Your task to perform on an android device: turn on notifications settings in the gmail app Image 0: 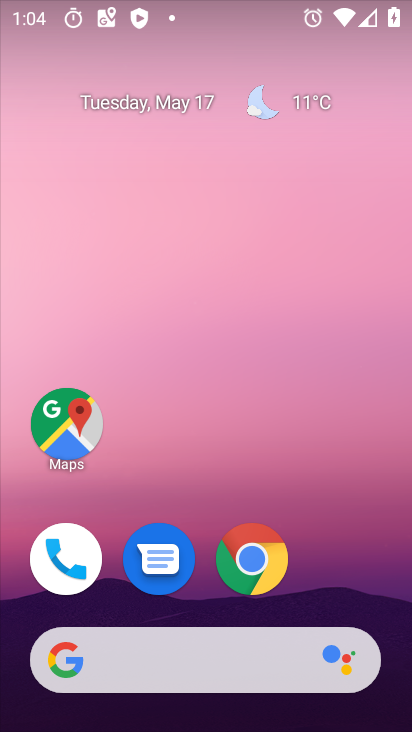
Step 0: drag from (344, 581) to (250, 27)
Your task to perform on an android device: turn on notifications settings in the gmail app Image 1: 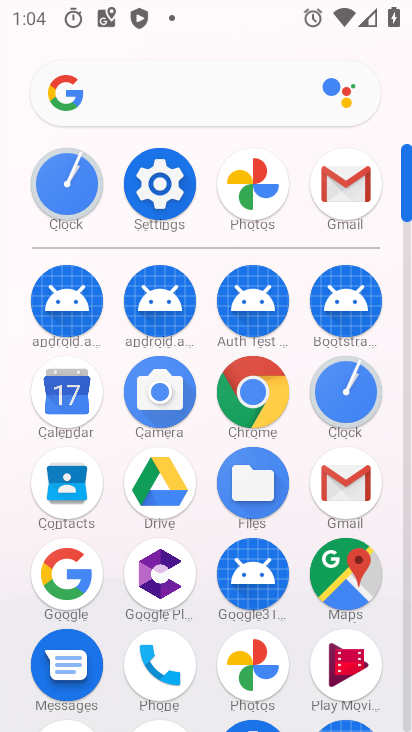
Step 1: click (336, 179)
Your task to perform on an android device: turn on notifications settings in the gmail app Image 2: 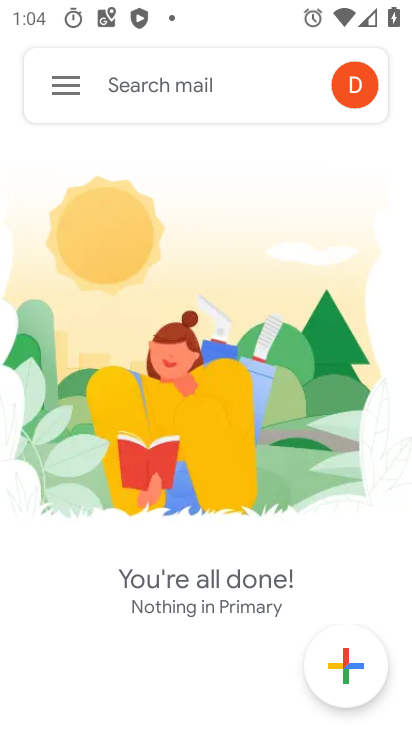
Step 2: click (72, 76)
Your task to perform on an android device: turn on notifications settings in the gmail app Image 3: 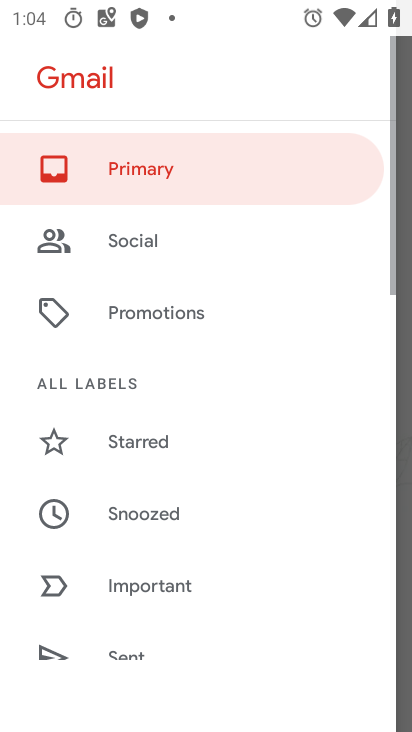
Step 3: drag from (186, 602) to (250, 228)
Your task to perform on an android device: turn on notifications settings in the gmail app Image 4: 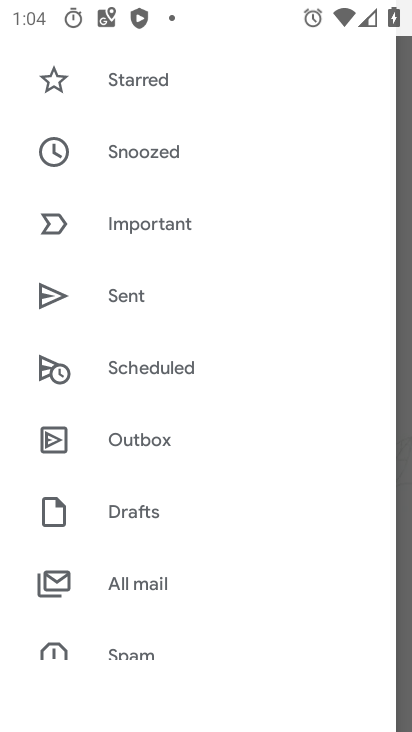
Step 4: drag from (149, 634) to (278, 190)
Your task to perform on an android device: turn on notifications settings in the gmail app Image 5: 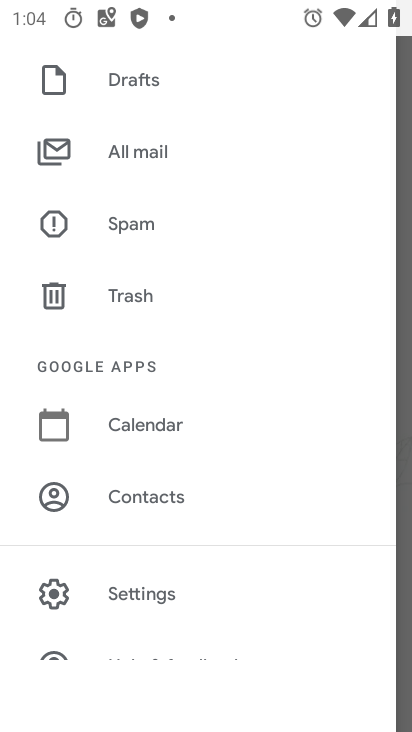
Step 5: click (122, 602)
Your task to perform on an android device: turn on notifications settings in the gmail app Image 6: 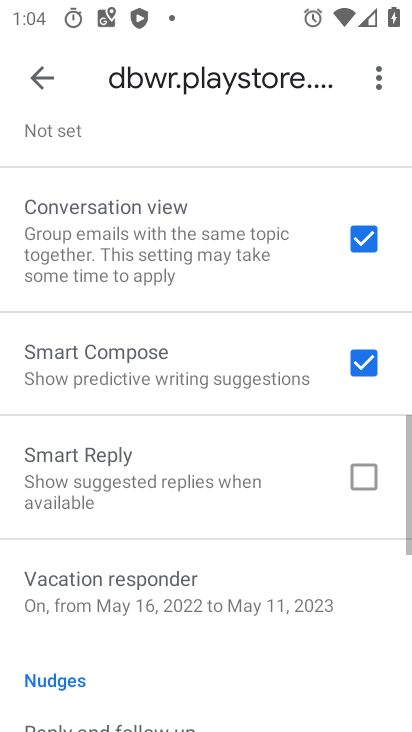
Step 6: drag from (188, 582) to (237, 126)
Your task to perform on an android device: turn on notifications settings in the gmail app Image 7: 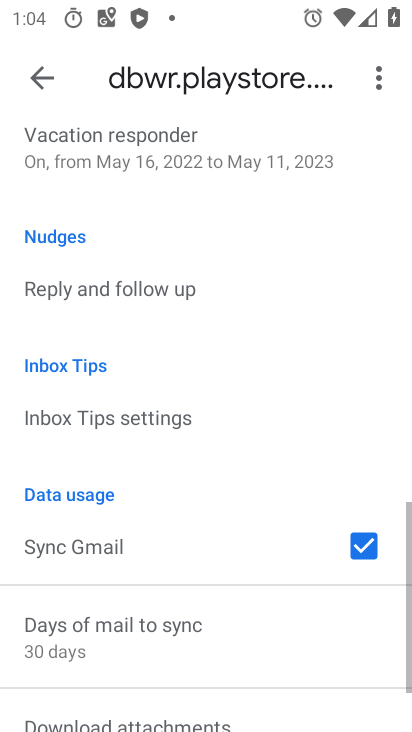
Step 7: drag from (237, 126) to (191, 720)
Your task to perform on an android device: turn on notifications settings in the gmail app Image 8: 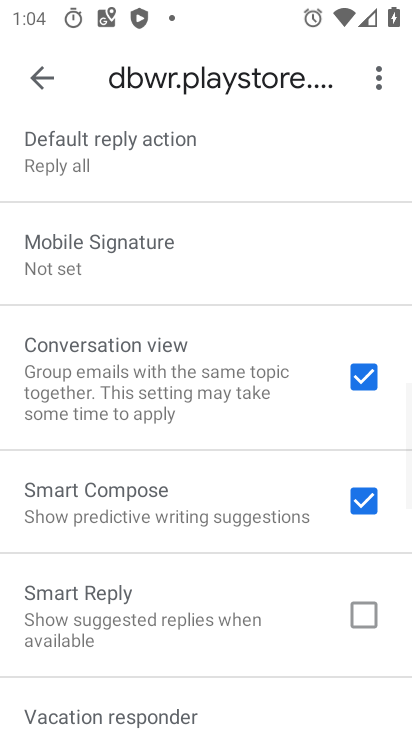
Step 8: drag from (231, 277) to (190, 680)
Your task to perform on an android device: turn on notifications settings in the gmail app Image 9: 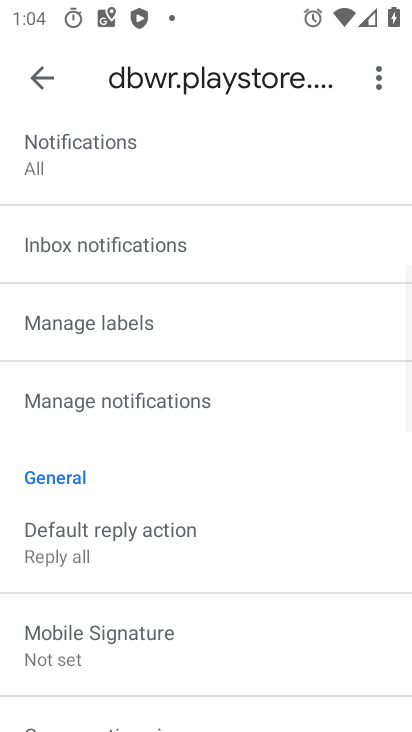
Step 9: drag from (228, 301) to (205, 474)
Your task to perform on an android device: turn on notifications settings in the gmail app Image 10: 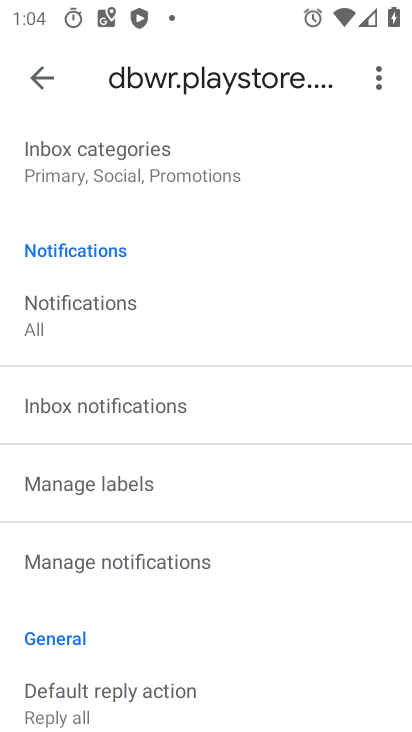
Step 10: click (132, 555)
Your task to perform on an android device: turn on notifications settings in the gmail app Image 11: 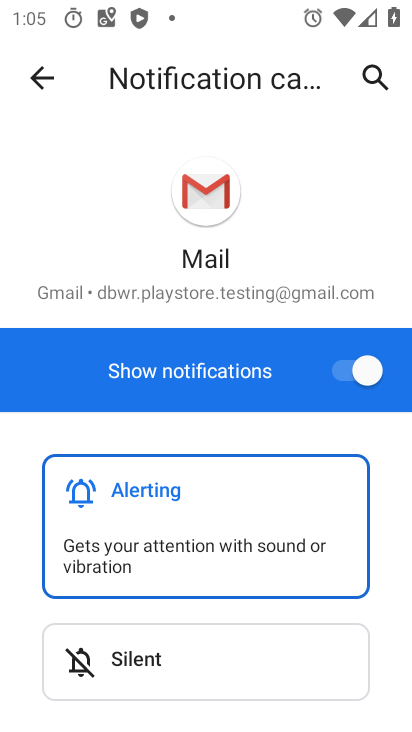
Step 11: task complete